Your task to perform on an android device: Open Chrome and go to settings Image 0: 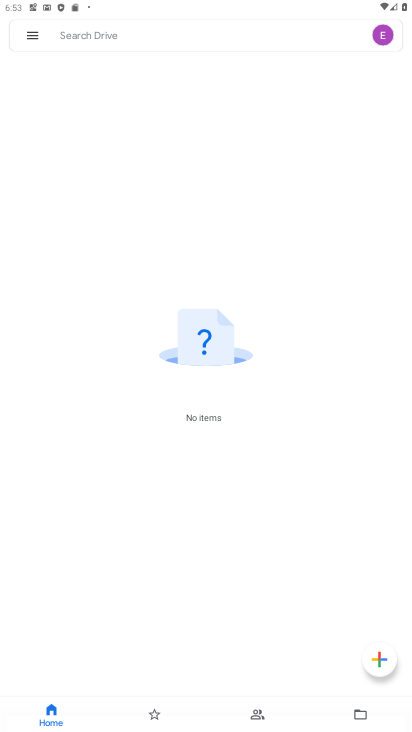
Step 0: press home button
Your task to perform on an android device: Open Chrome and go to settings Image 1: 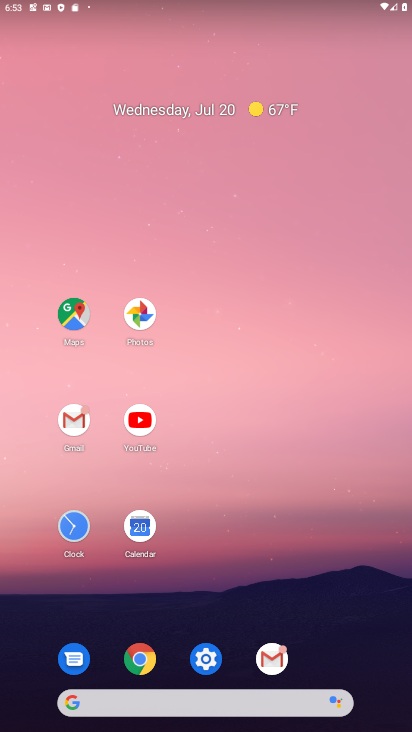
Step 1: click (141, 660)
Your task to perform on an android device: Open Chrome and go to settings Image 2: 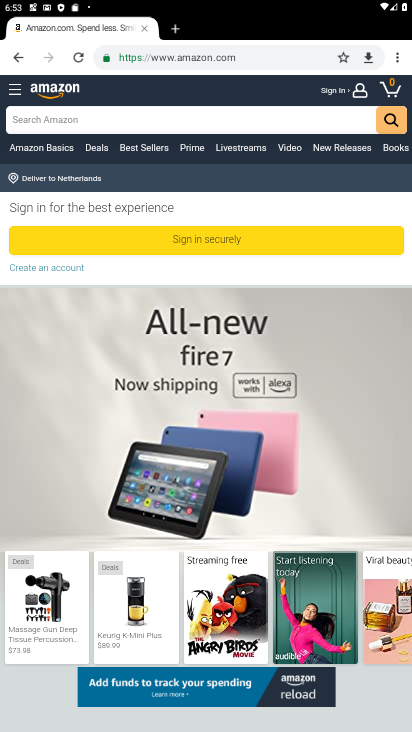
Step 2: click (399, 60)
Your task to perform on an android device: Open Chrome and go to settings Image 3: 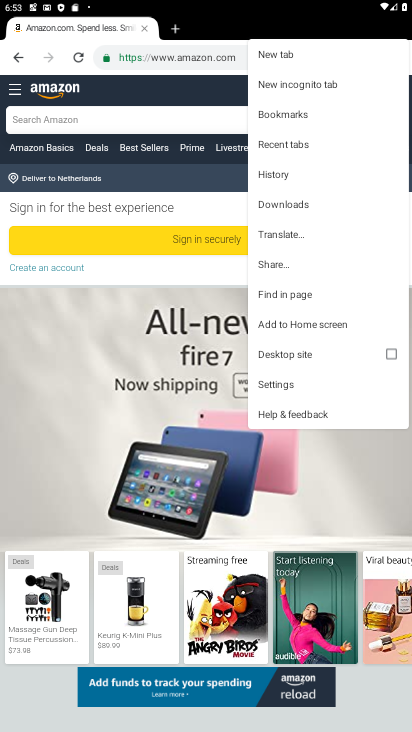
Step 3: click (272, 387)
Your task to perform on an android device: Open Chrome and go to settings Image 4: 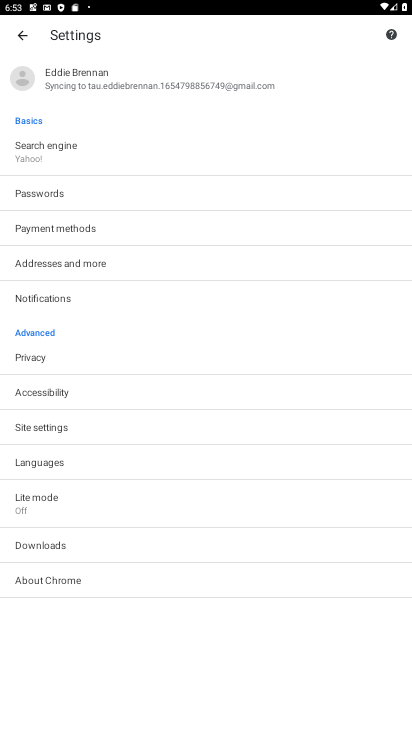
Step 4: task complete